Your task to perform on an android device: turn on priority inbox in the gmail app Image 0: 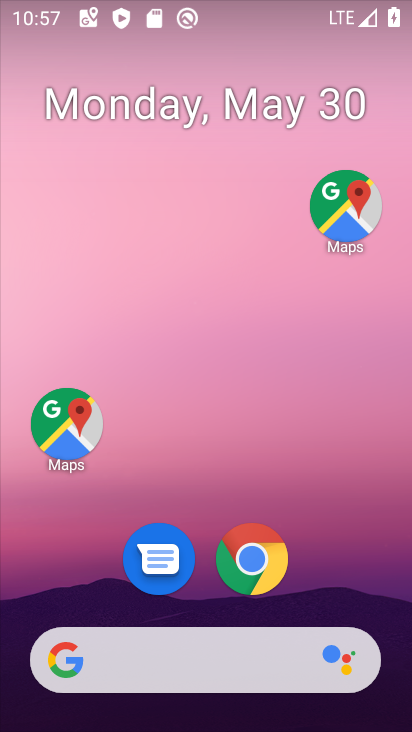
Step 0: drag from (314, 530) to (293, 73)
Your task to perform on an android device: turn on priority inbox in the gmail app Image 1: 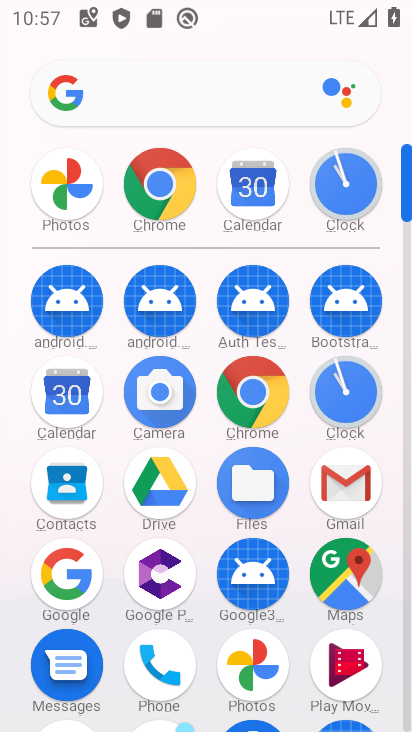
Step 1: click (345, 481)
Your task to perform on an android device: turn on priority inbox in the gmail app Image 2: 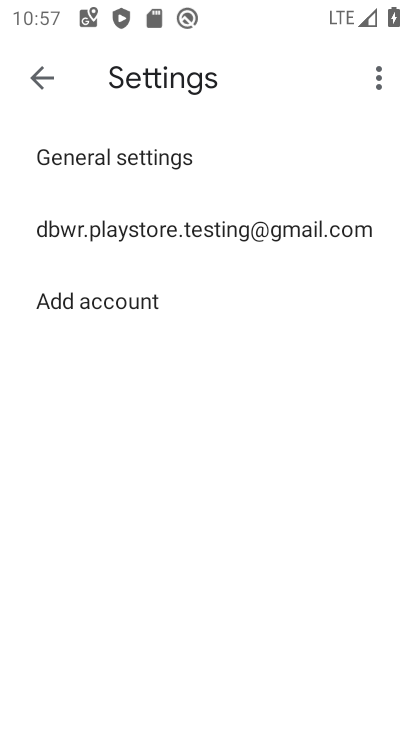
Step 2: click (204, 221)
Your task to perform on an android device: turn on priority inbox in the gmail app Image 3: 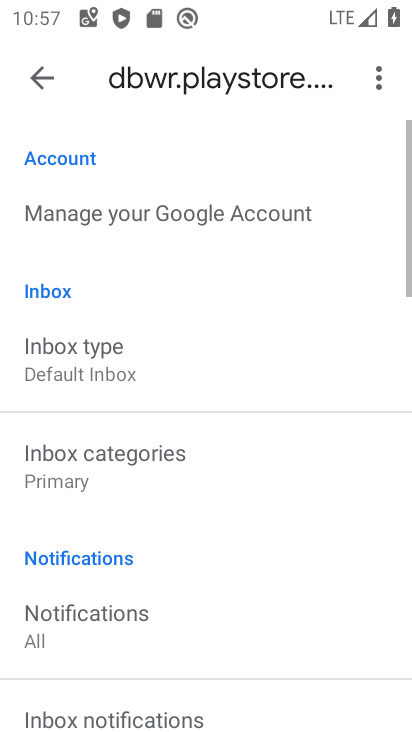
Step 3: click (94, 344)
Your task to perform on an android device: turn on priority inbox in the gmail app Image 4: 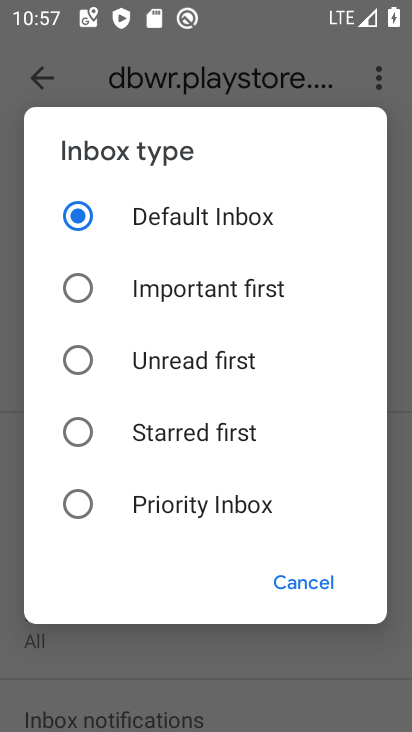
Step 4: task complete